Your task to perform on an android device: add a contact Image 0: 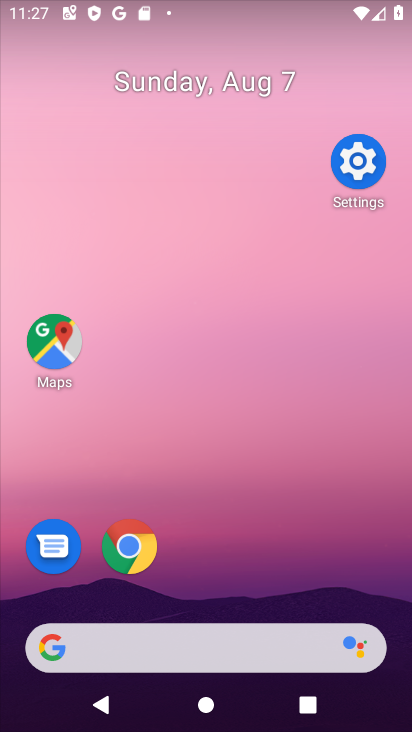
Step 0: drag from (268, 676) to (286, 245)
Your task to perform on an android device: add a contact Image 1: 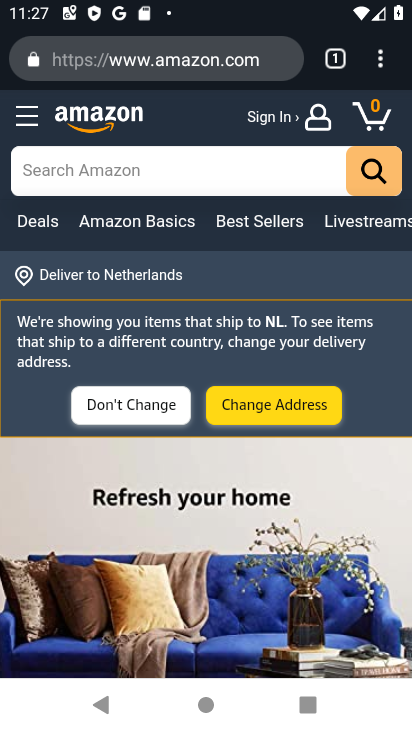
Step 1: press back button
Your task to perform on an android device: add a contact Image 2: 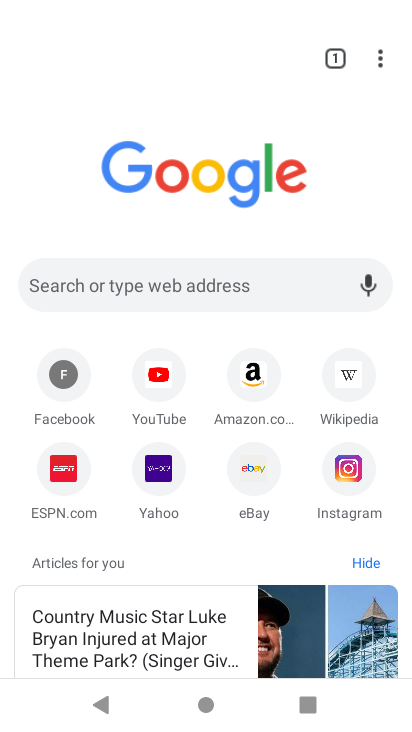
Step 2: press back button
Your task to perform on an android device: add a contact Image 3: 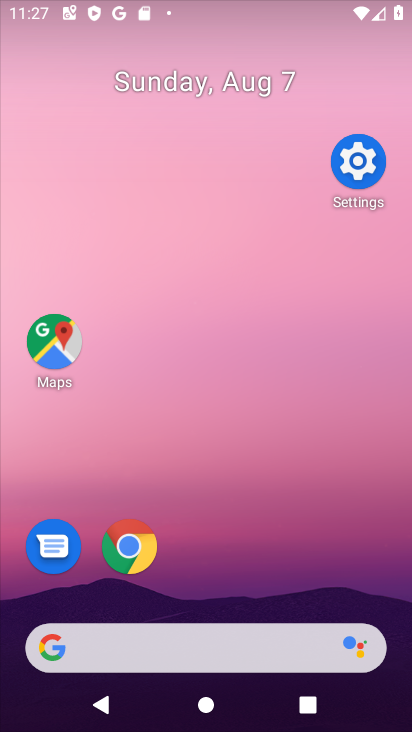
Step 3: drag from (255, 496) to (281, 101)
Your task to perform on an android device: add a contact Image 4: 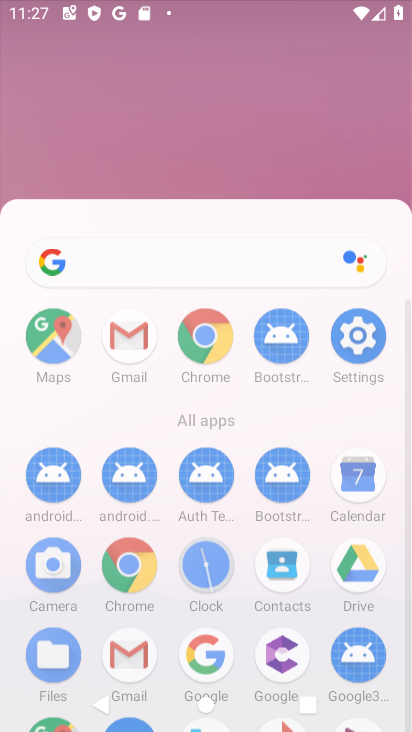
Step 4: drag from (217, 348) to (217, 225)
Your task to perform on an android device: add a contact Image 5: 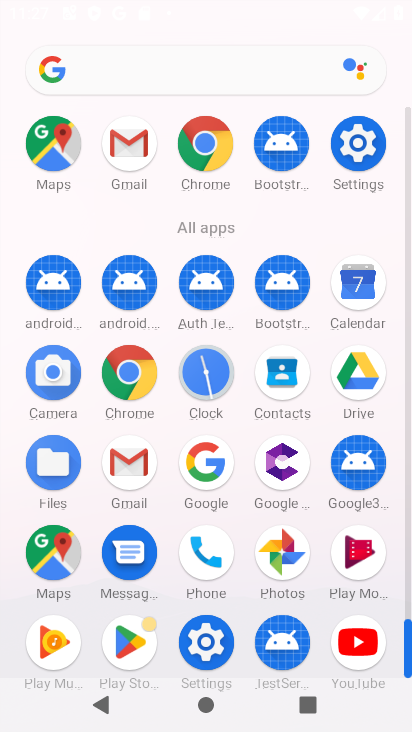
Step 5: click (278, 379)
Your task to perform on an android device: add a contact Image 6: 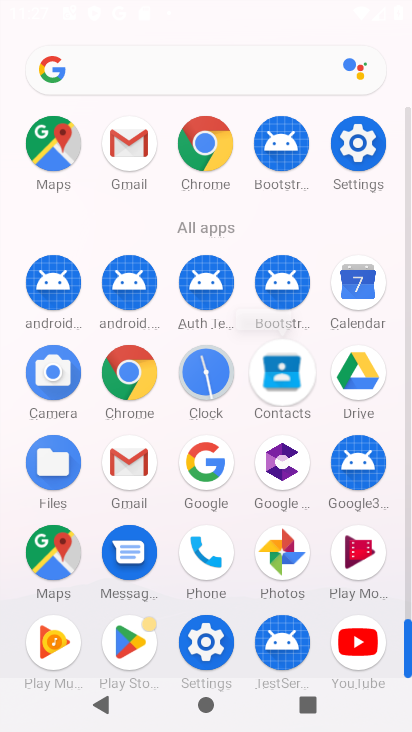
Step 6: click (278, 379)
Your task to perform on an android device: add a contact Image 7: 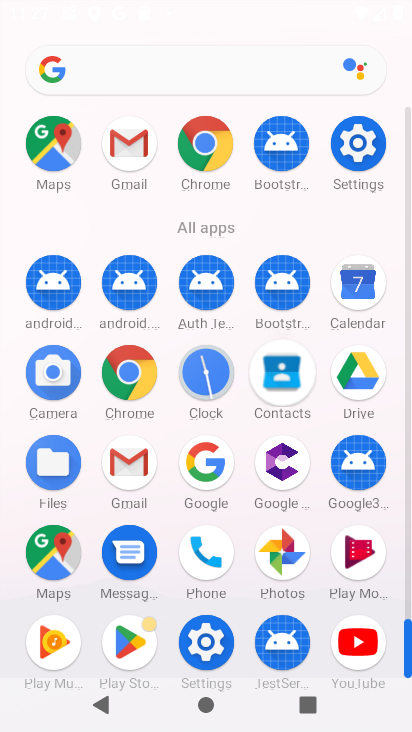
Step 7: click (278, 379)
Your task to perform on an android device: add a contact Image 8: 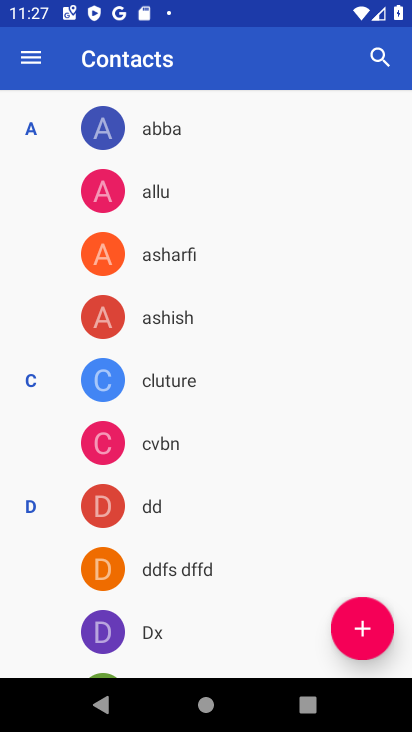
Step 8: click (370, 623)
Your task to perform on an android device: add a contact Image 9: 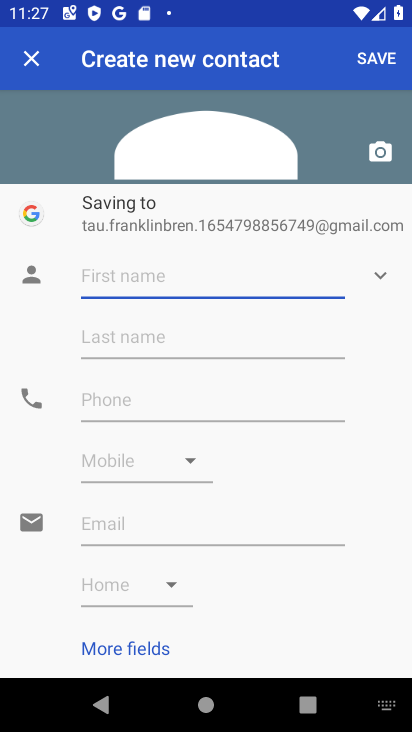
Step 9: type "hhdthhd"
Your task to perform on an android device: add a contact Image 10: 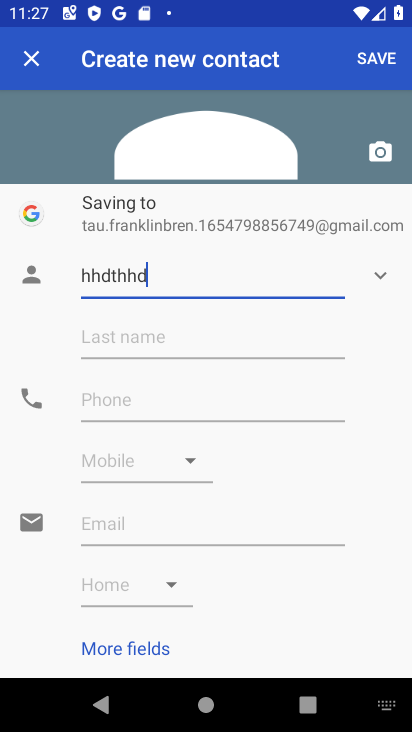
Step 10: click (114, 399)
Your task to perform on an android device: add a contact Image 11: 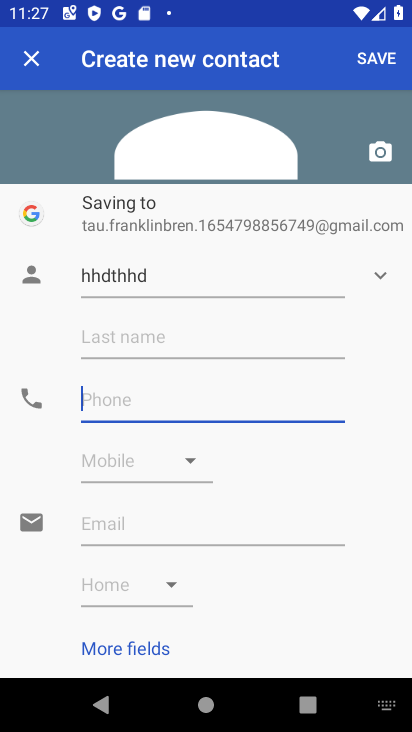
Step 11: type "75655767878567"
Your task to perform on an android device: add a contact Image 12: 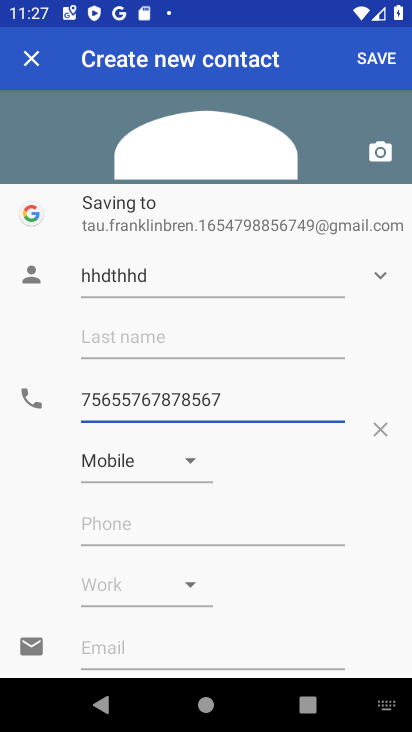
Step 12: click (381, 52)
Your task to perform on an android device: add a contact Image 13: 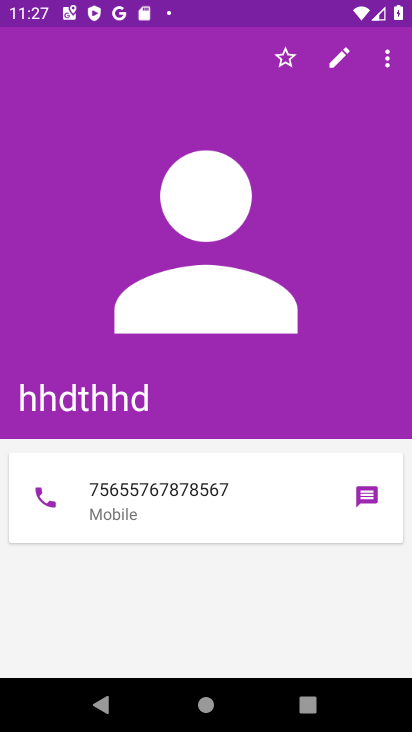
Step 13: task complete